Your task to perform on an android device: Open the calendar and show me this week's events? Image 0: 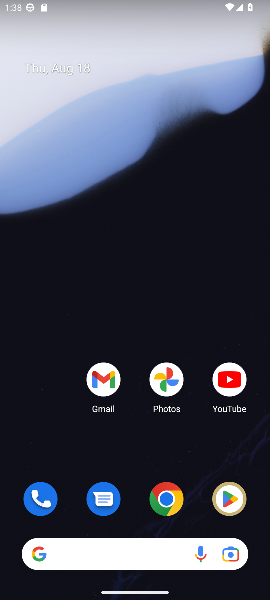
Step 0: drag from (138, 460) to (112, 66)
Your task to perform on an android device: Open the calendar and show me this week's events? Image 1: 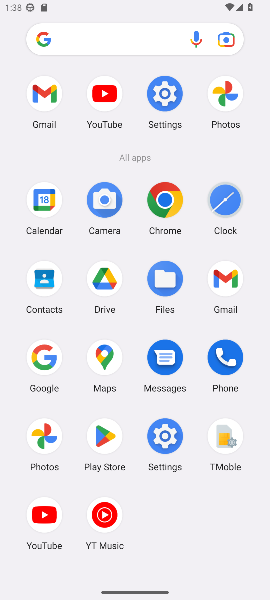
Step 1: click (49, 196)
Your task to perform on an android device: Open the calendar and show me this week's events? Image 2: 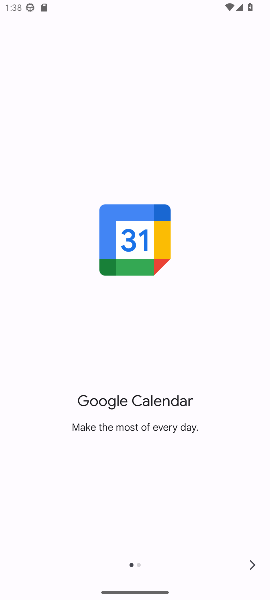
Step 2: click (252, 564)
Your task to perform on an android device: Open the calendar and show me this week's events? Image 3: 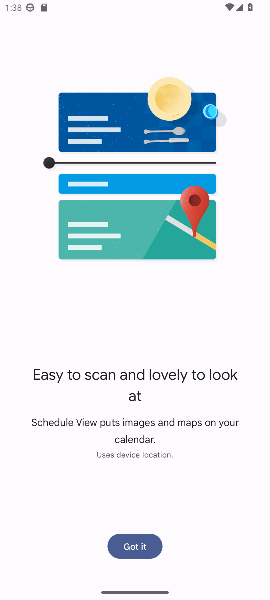
Step 3: click (134, 541)
Your task to perform on an android device: Open the calendar and show me this week's events? Image 4: 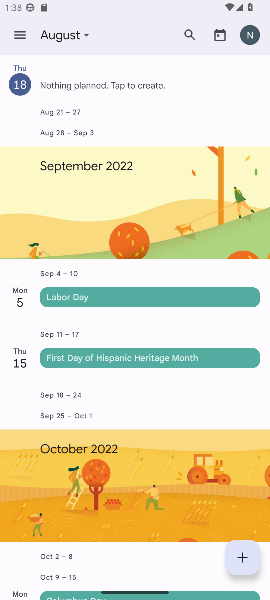
Step 4: click (20, 31)
Your task to perform on an android device: Open the calendar and show me this week's events? Image 5: 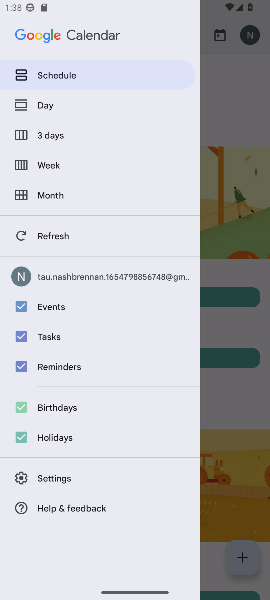
Step 5: click (47, 163)
Your task to perform on an android device: Open the calendar and show me this week's events? Image 6: 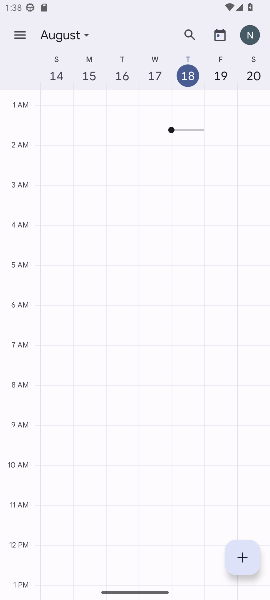
Step 6: task complete